Your task to perform on an android device: When is my next meeting? Image 0: 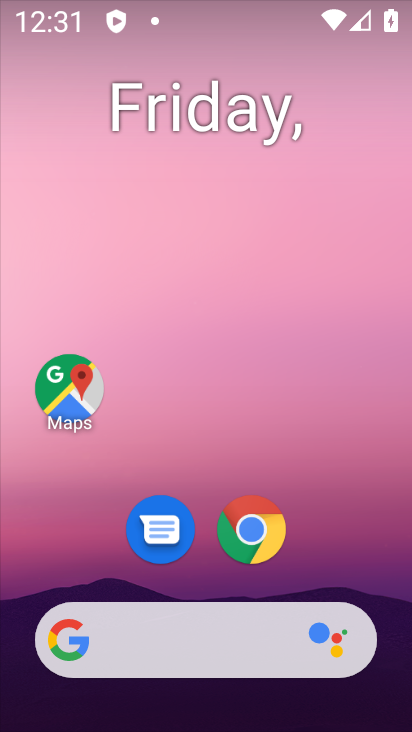
Step 0: drag from (172, 589) to (195, 215)
Your task to perform on an android device: When is my next meeting? Image 1: 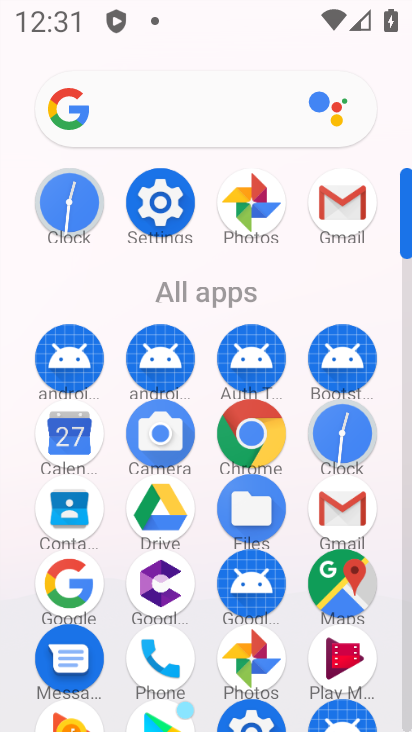
Step 1: drag from (203, 695) to (192, 370)
Your task to perform on an android device: When is my next meeting? Image 2: 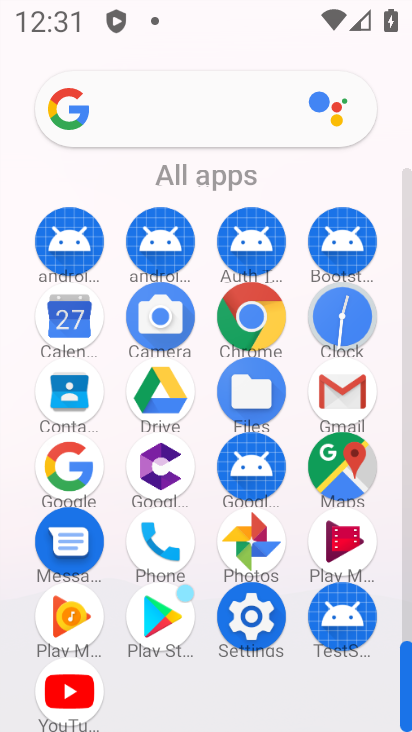
Step 2: click (70, 308)
Your task to perform on an android device: When is my next meeting? Image 3: 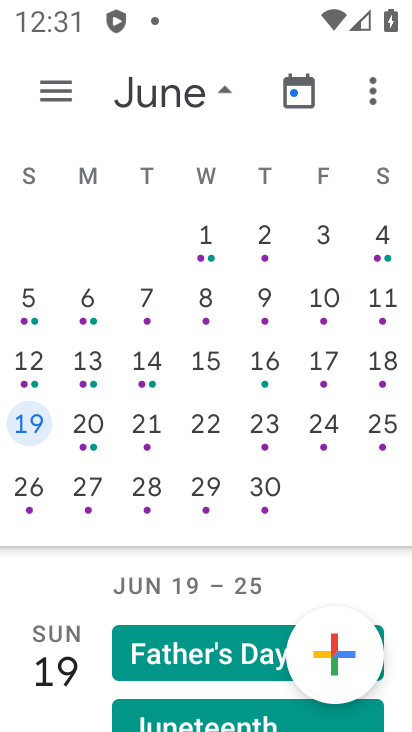
Step 3: drag from (17, 276) to (410, 357)
Your task to perform on an android device: When is my next meeting? Image 4: 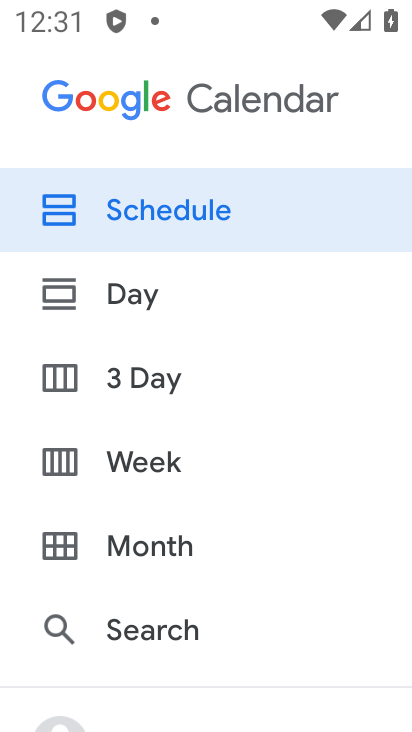
Step 4: click (156, 232)
Your task to perform on an android device: When is my next meeting? Image 5: 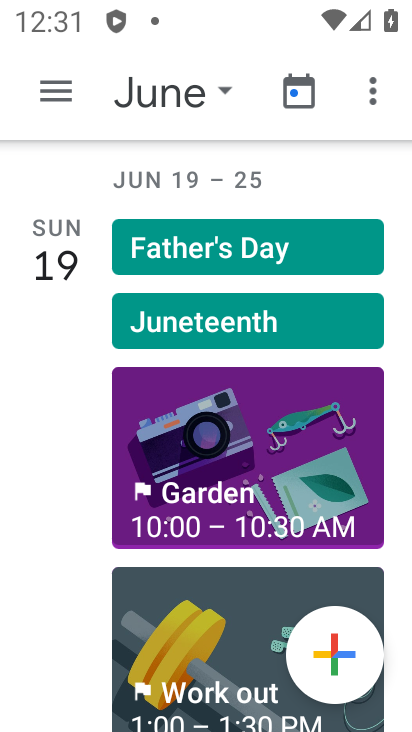
Step 5: click (142, 90)
Your task to perform on an android device: When is my next meeting? Image 6: 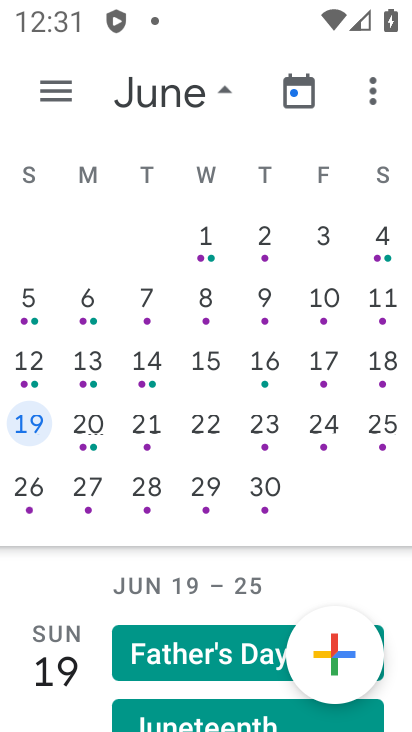
Step 6: drag from (53, 345) to (408, 397)
Your task to perform on an android device: When is my next meeting? Image 7: 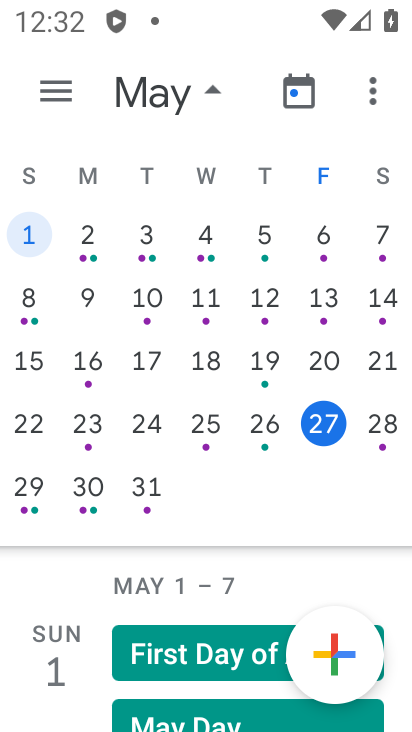
Step 7: drag from (202, 686) to (225, 291)
Your task to perform on an android device: When is my next meeting? Image 8: 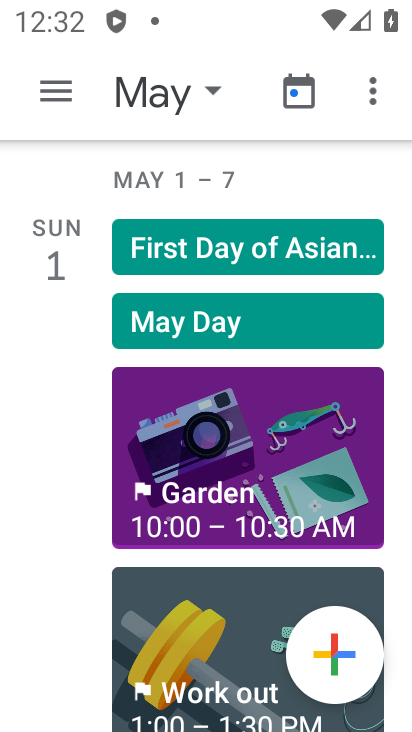
Step 8: click (217, 474)
Your task to perform on an android device: When is my next meeting? Image 9: 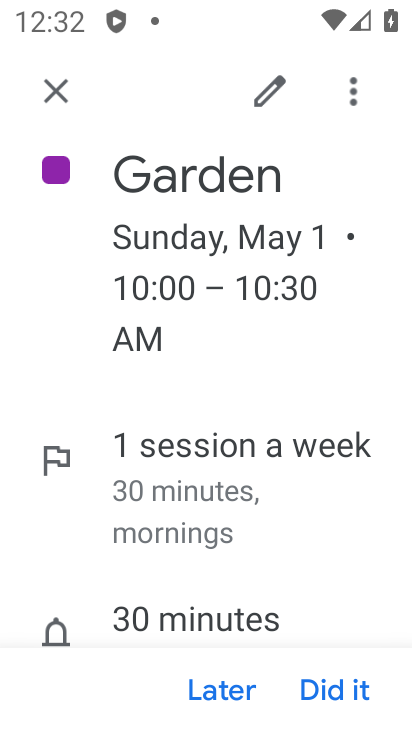
Step 9: task complete